Your task to perform on an android device: Search for seafood restaurants on Google Maps Image 0: 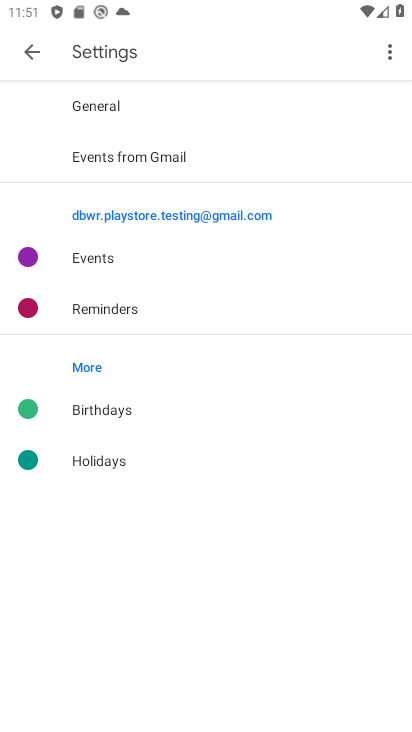
Step 0: press home button
Your task to perform on an android device: Search for seafood restaurants on Google Maps Image 1: 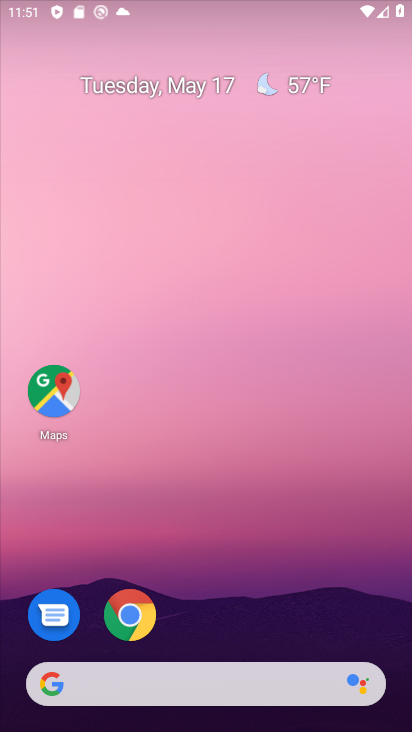
Step 1: drag from (380, 621) to (270, 8)
Your task to perform on an android device: Search for seafood restaurants on Google Maps Image 2: 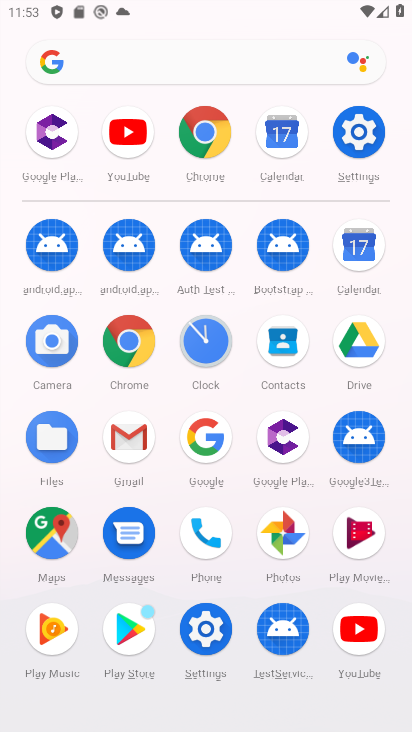
Step 2: click (63, 534)
Your task to perform on an android device: Search for seafood restaurants on Google Maps Image 3: 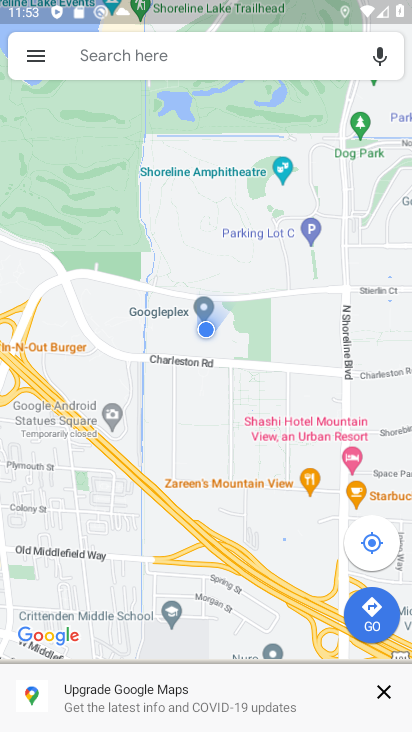
Step 3: click (216, 51)
Your task to perform on an android device: Search for seafood restaurants on Google Maps Image 4: 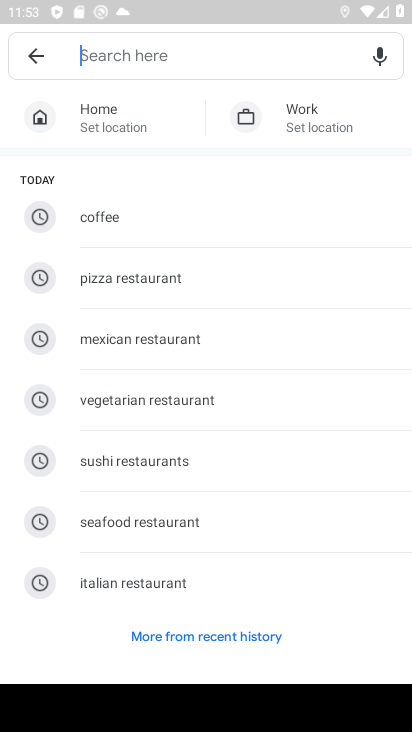
Step 4: click (150, 519)
Your task to perform on an android device: Search for seafood restaurants on Google Maps Image 5: 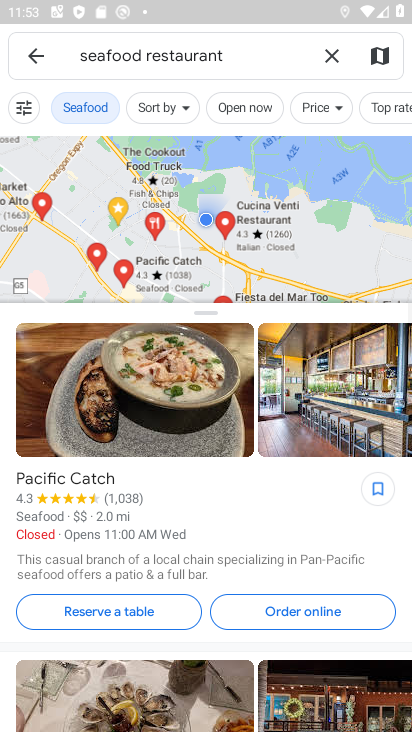
Step 5: task complete